Your task to perform on an android device: turn off location Image 0: 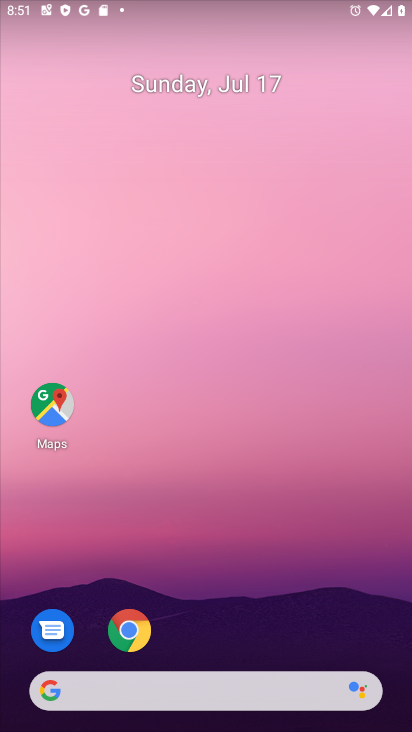
Step 0: drag from (181, 577) to (158, 15)
Your task to perform on an android device: turn off location Image 1: 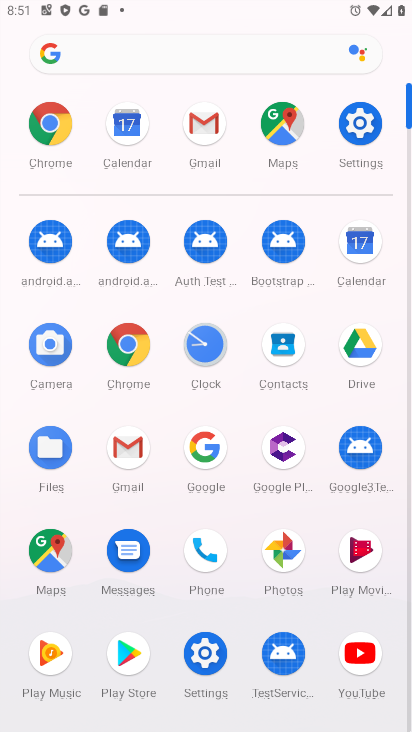
Step 1: click (372, 134)
Your task to perform on an android device: turn off location Image 2: 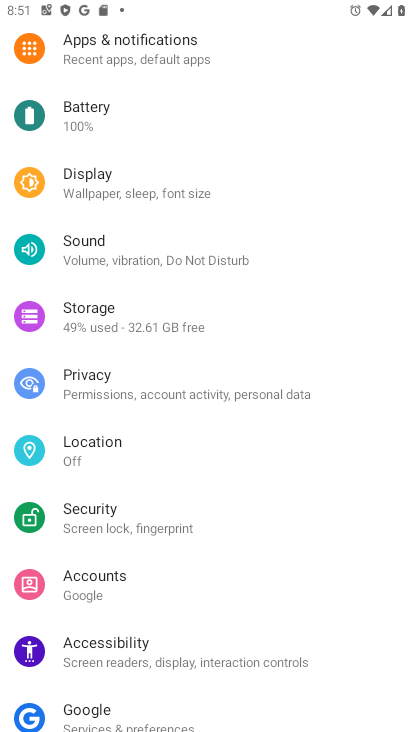
Step 2: click (107, 437)
Your task to perform on an android device: turn off location Image 3: 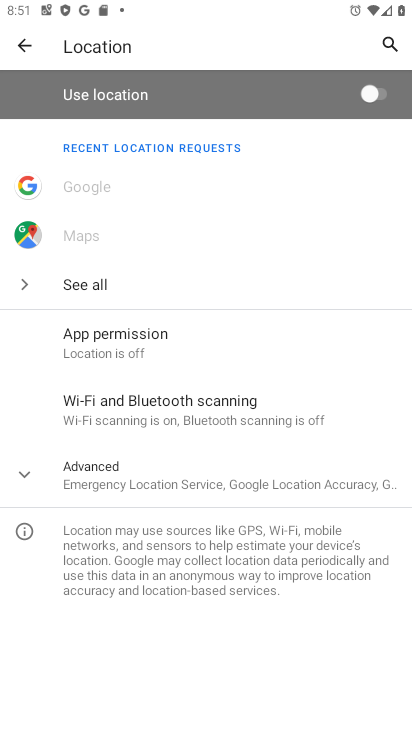
Step 3: task complete